Your task to perform on an android device: Open Reddit.com Image 0: 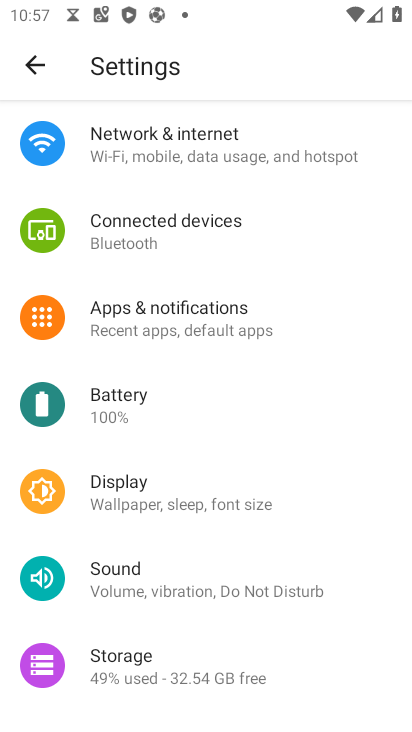
Step 0: press home button
Your task to perform on an android device: Open Reddit.com Image 1: 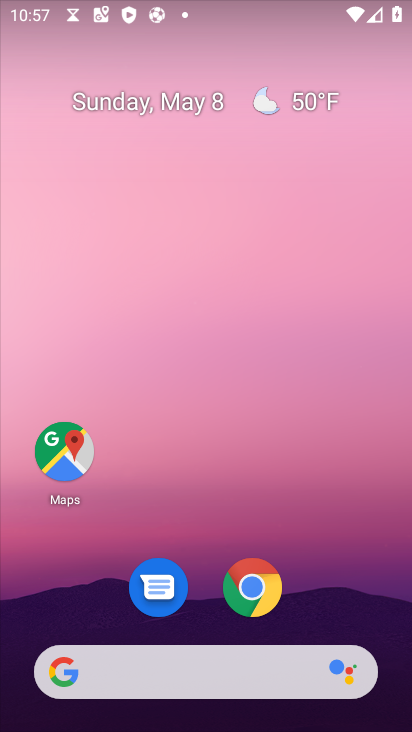
Step 1: click (252, 591)
Your task to perform on an android device: Open Reddit.com Image 2: 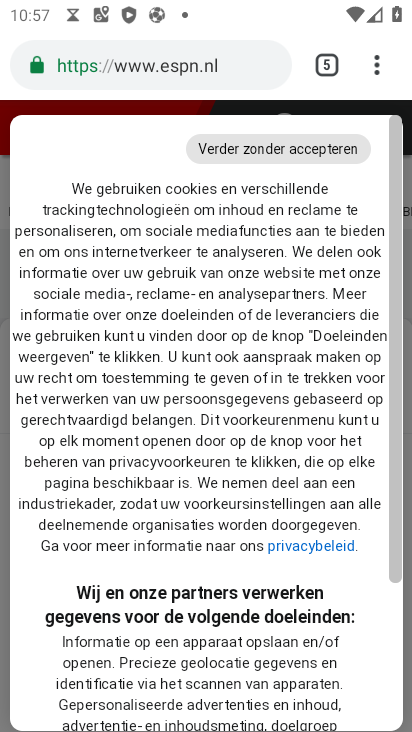
Step 2: click (332, 58)
Your task to perform on an android device: Open Reddit.com Image 3: 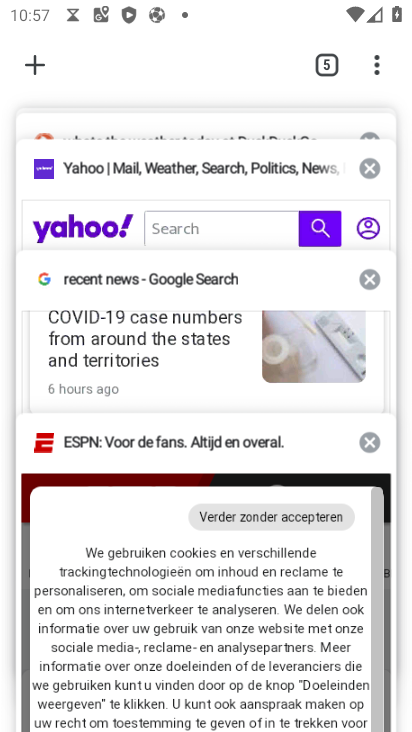
Step 3: click (34, 61)
Your task to perform on an android device: Open Reddit.com Image 4: 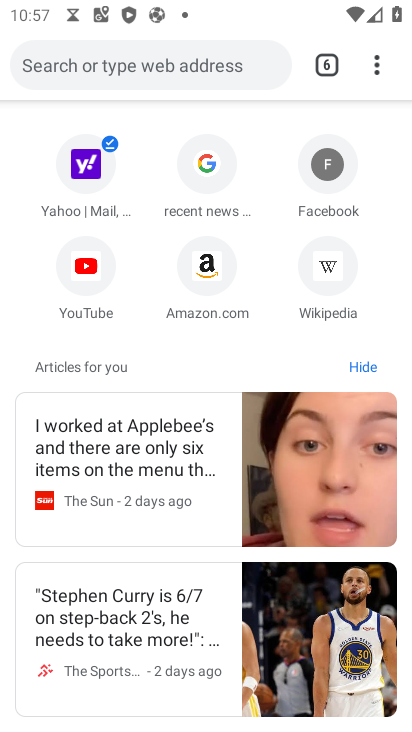
Step 4: click (194, 65)
Your task to perform on an android device: Open Reddit.com Image 5: 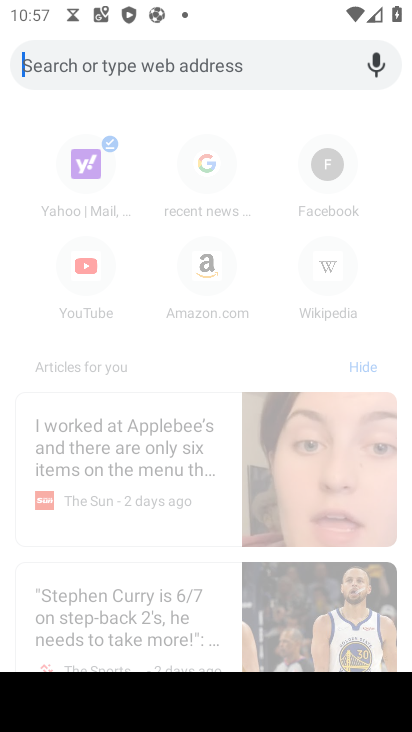
Step 5: type "reddit .com"
Your task to perform on an android device: Open Reddit.com Image 6: 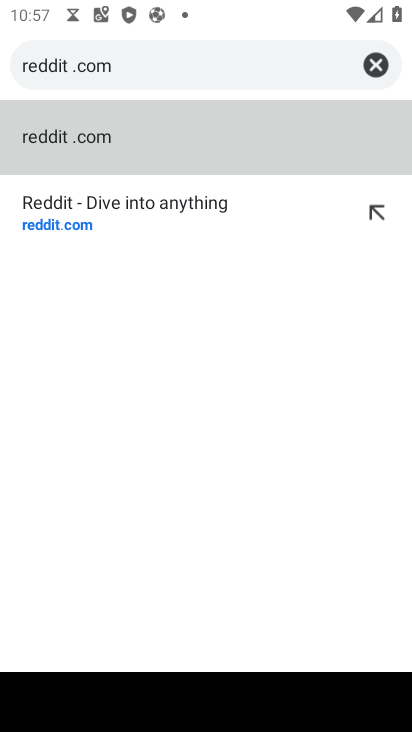
Step 6: click (42, 229)
Your task to perform on an android device: Open Reddit.com Image 7: 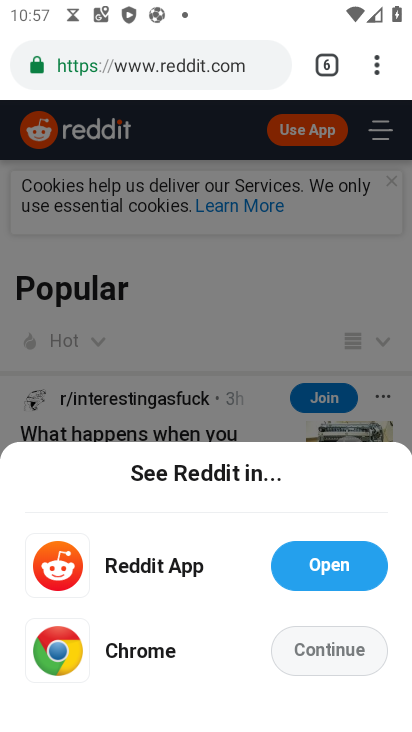
Step 7: drag from (292, 409) to (255, 190)
Your task to perform on an android device: Open Reddit.com Image 8: 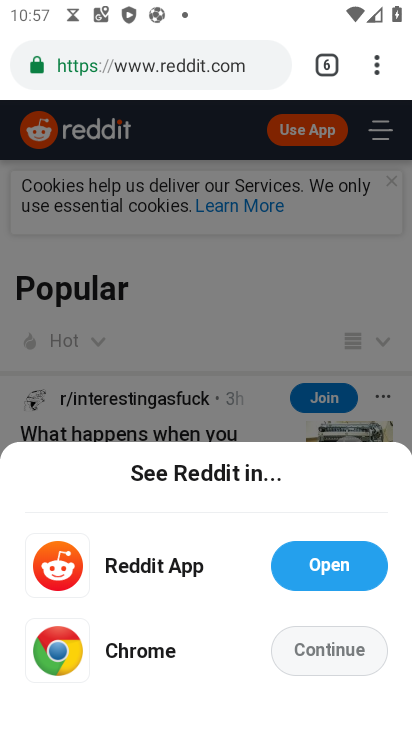
Step 8: click (334, 659)
Your task to perform on an android device: Open Reddit.com Image 9: 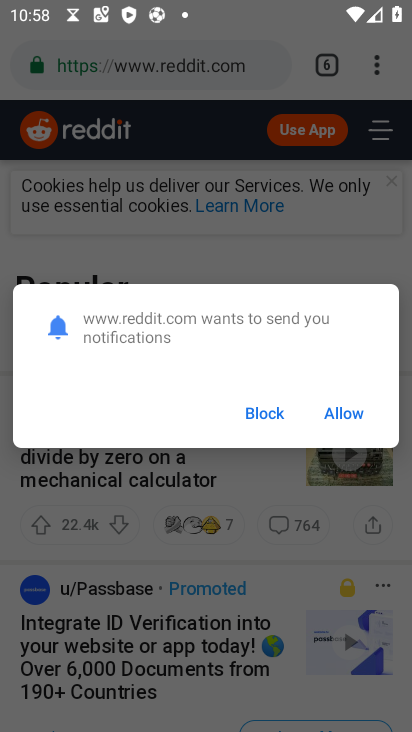
Step 9: task complete